Your task to perform on an android device: change the clock display to show seconds Image 0: 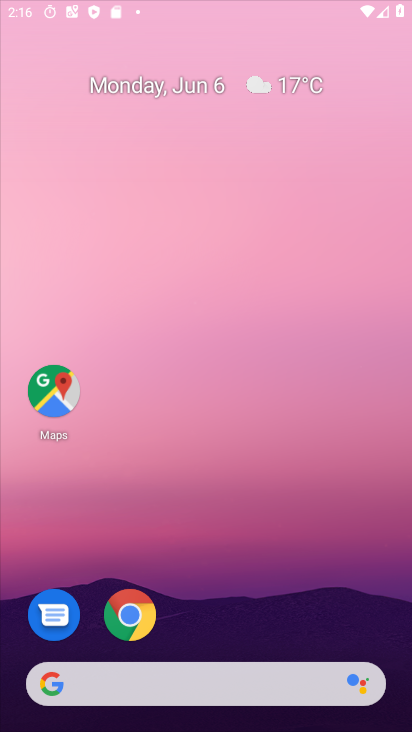
Step 0: click (286, 181)
Your task to perform on an android device: change the clock display to show seconds Image 1: 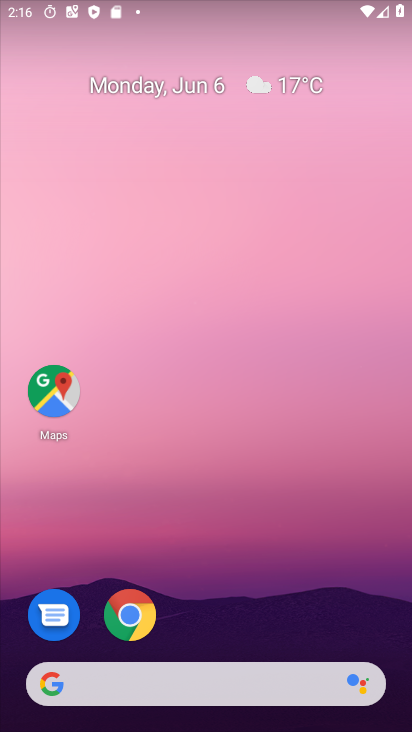
Step 1: drag from (205, 599) to (236, 134)
Your task to perform on an android device: change the clock display to show seconds Image 2: 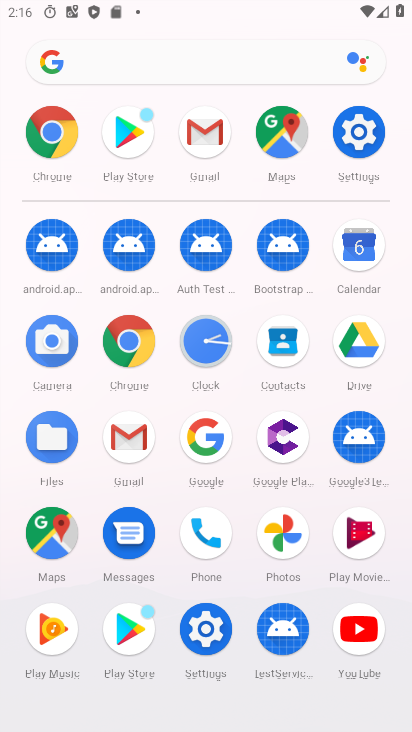
Step 2: click (183, 333)
Your task to perform on an android device: change the clock display to show seconds Image 3: 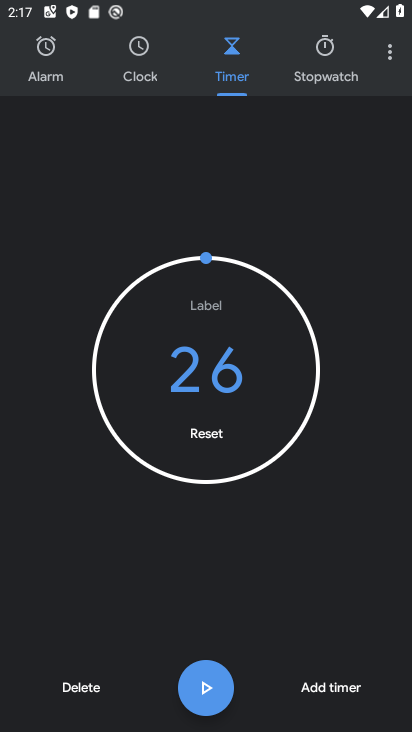
Step 3: drag from (267, 503) to (288, 301)
Your task to perform on an android device: change the clock display to show seconds Image 4: 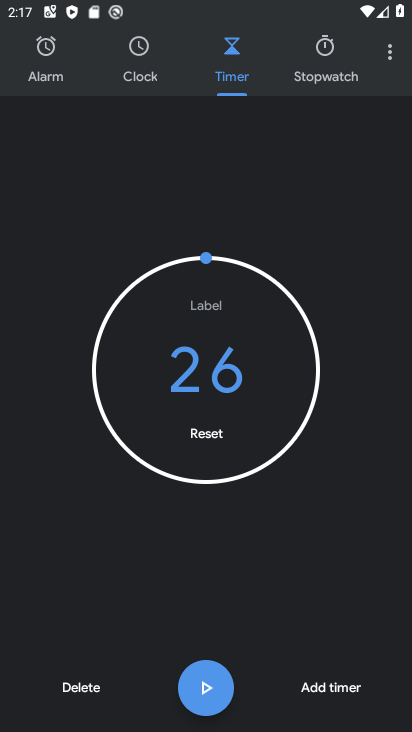
Step 4: drag from (261, 364) to (269, 614)
Your task to perform on an android device: change the clock display to show seconds Image 5: 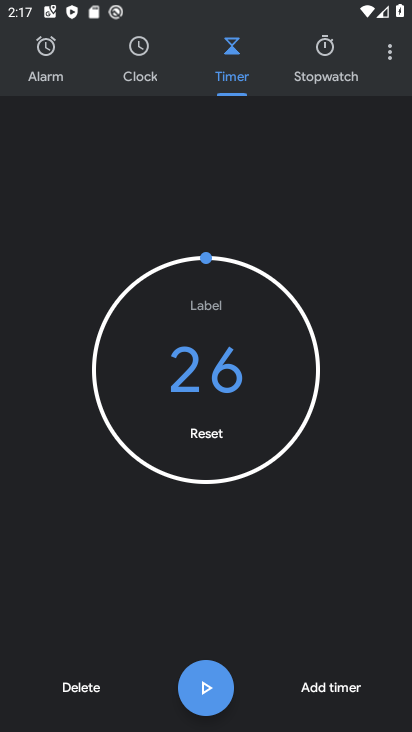
Step 5: click (395, 60)
Your task to perform on an android device: change the clock display to show seconds Image 6: 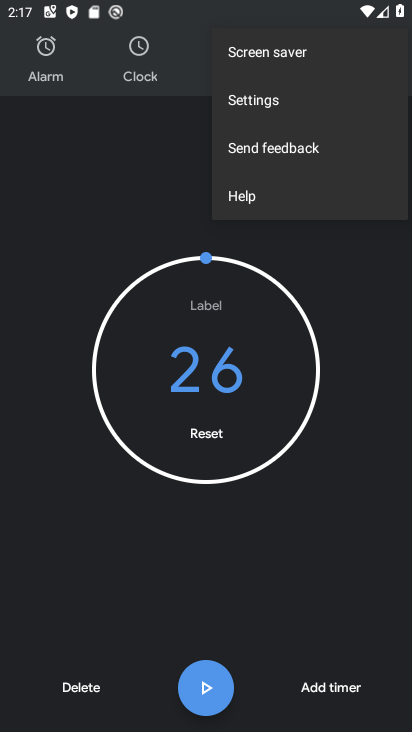
Step 6: click (311, 102)
Your task to perform on an android device: change the clock display to show seconds Image 7: 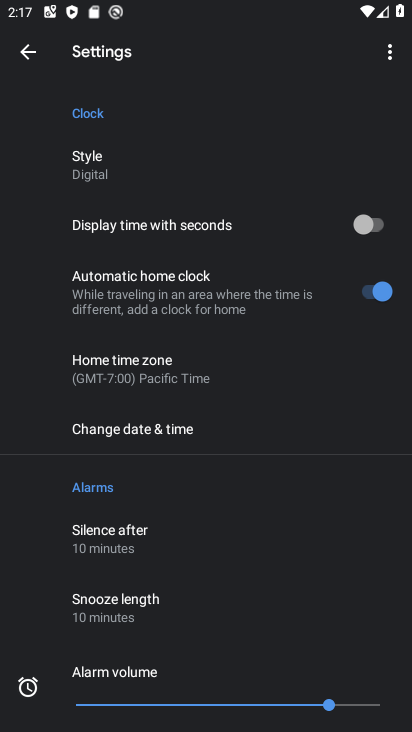
Step 7: click (308, 234)
Your task to perform on an android device: change the clock display to show seconds Image 8: 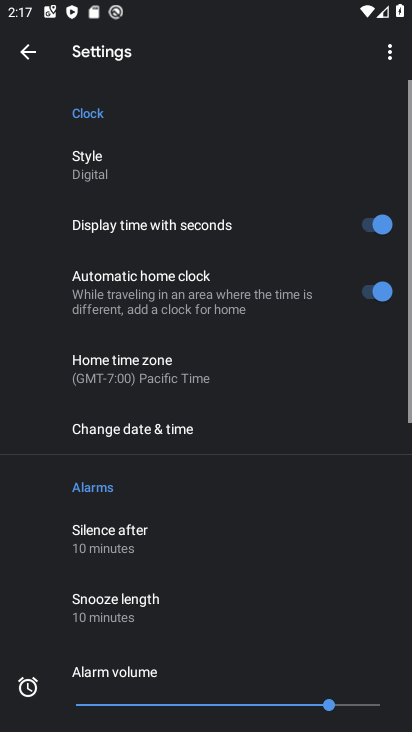
Step 8: task complete